Your task to perform on an android device: Open Yahoo.com Image 0: 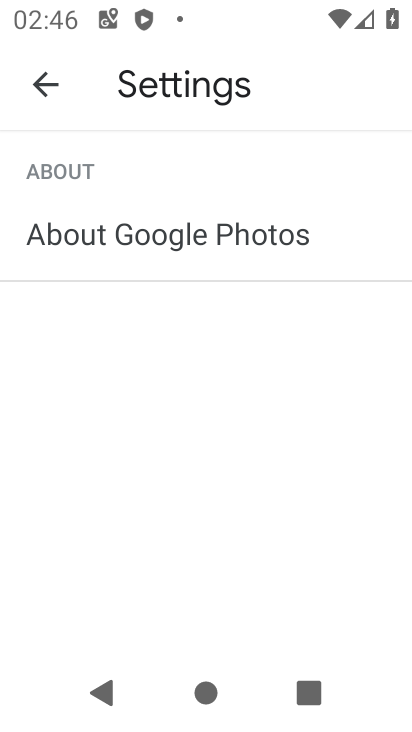
Step 0: press home button
Your task to perform on an android device: Open Yahoo.com Image 1: 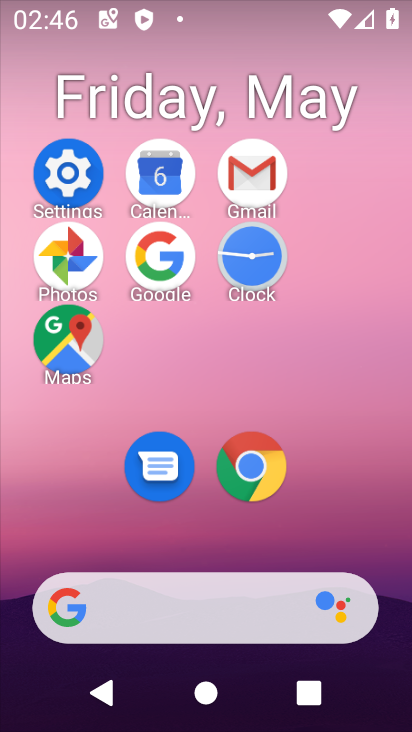
Step 1: click (245, 468)
Your task to perform on an android device: Open Yahoo.com Image 2: 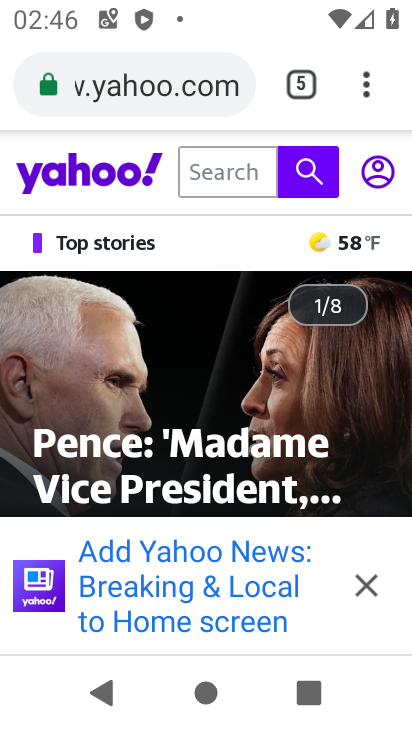
Step 2: task complete